Your task to perform on an android device: Is it going to rain tomorrow? Image 0: 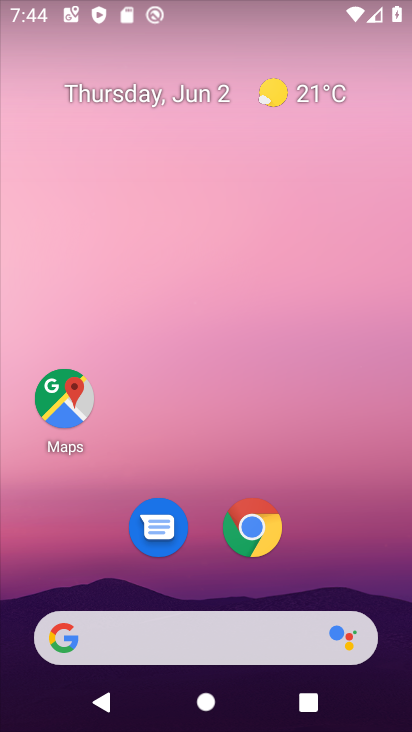
Step 0: drag from (352, 568) to (284, 126)
Your task to perform on an android device: Is it going to rain tomorrow? Image 1: 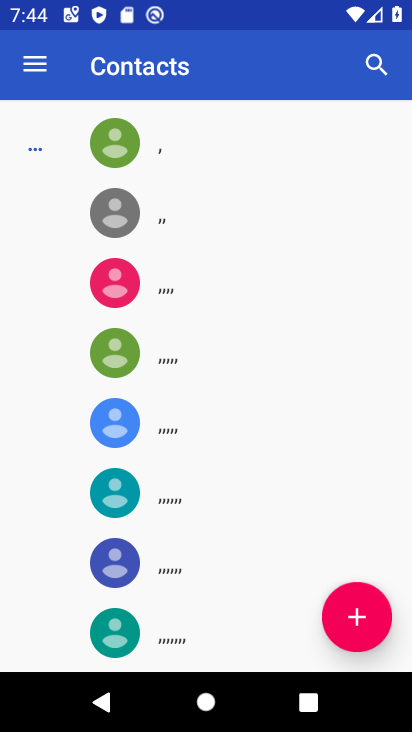
Step 1: press home button
Your task to perform on an android device: Is it going to rain tomorrow? Image 2: 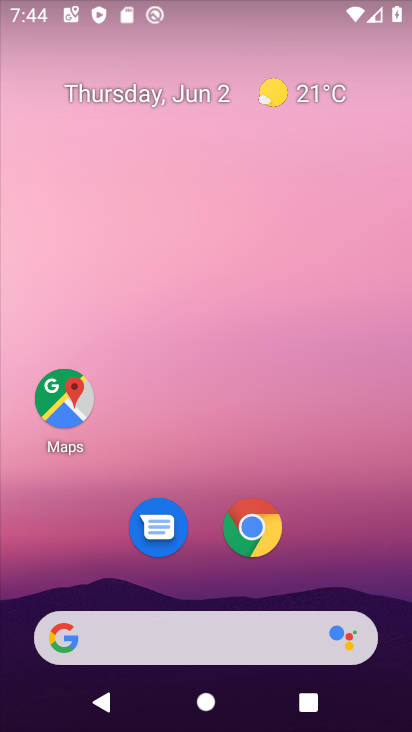
Step 2: click (295, 91)
Your task to perform on an android device: Is it going to rain tomorrow? Image 3: 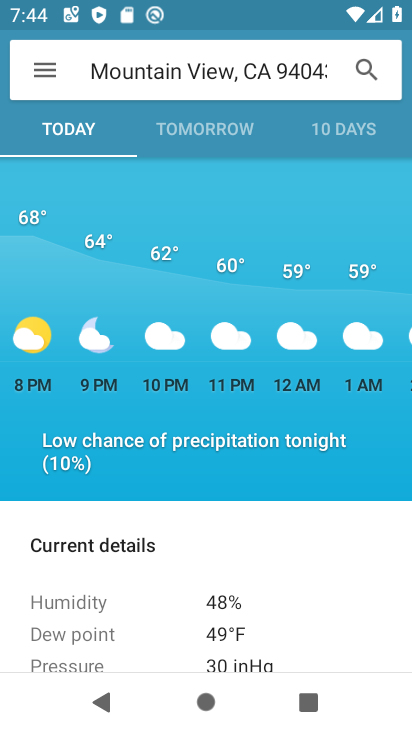
Step 3: click (238, 136)
Your task to perform on an android device: Is it going to rain tomorrow? Image 4: 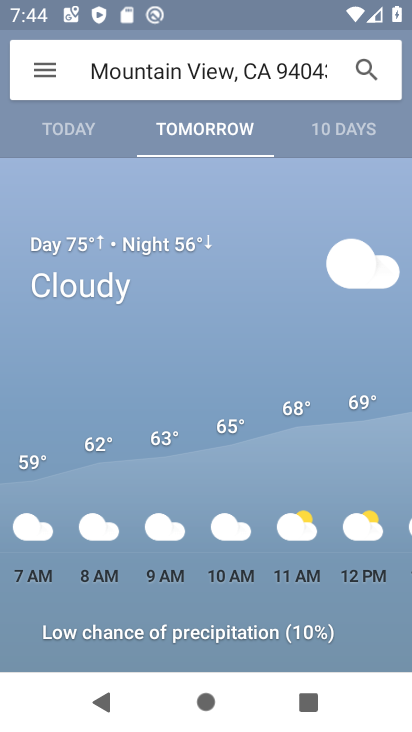
Step 4: task complete